Your task to perform on an android device: open app "Google Find My Device" (install if not already installed) Image 0: 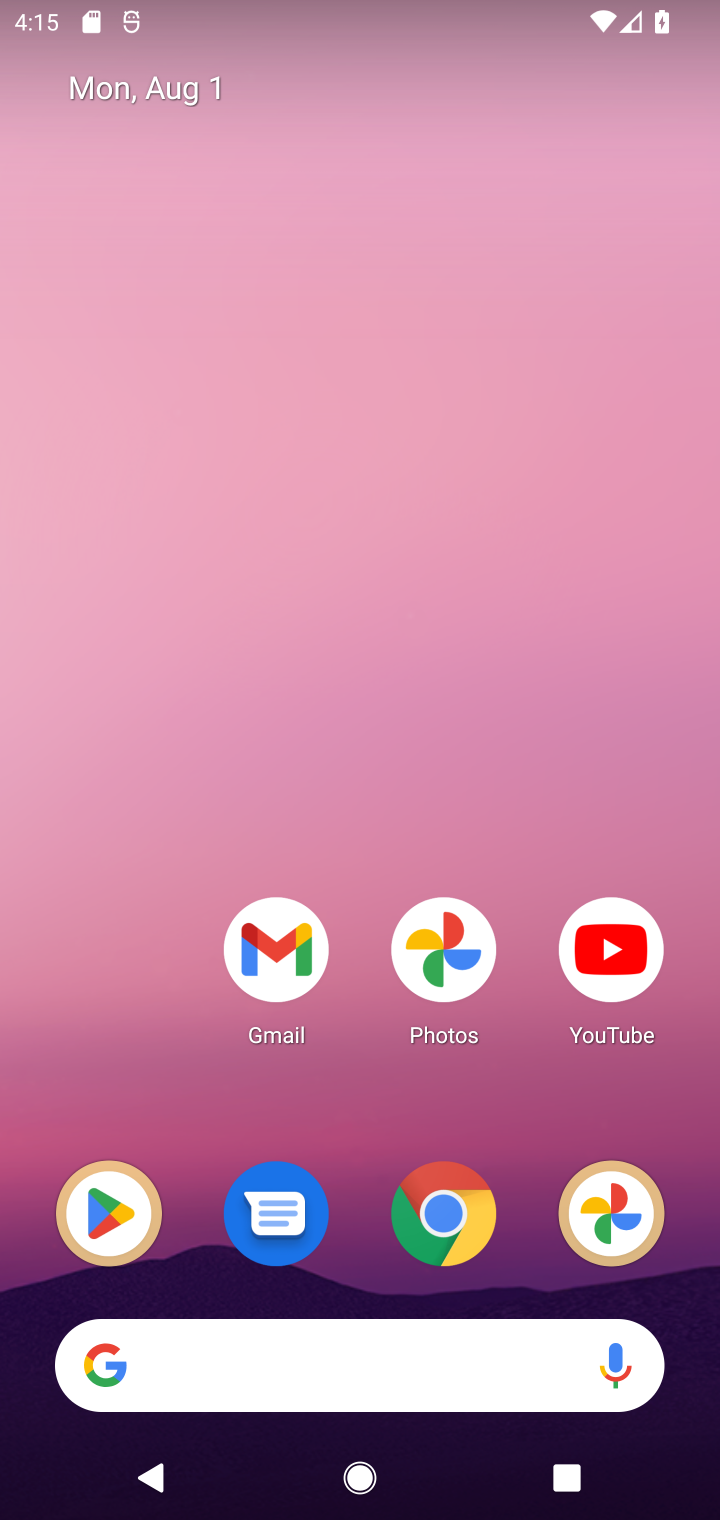
Step 0: drag from (492, 1087) to (518, 69)
Your task to perform on an android device: open app "Google Find My Device" (install if not already installed) Image 1: 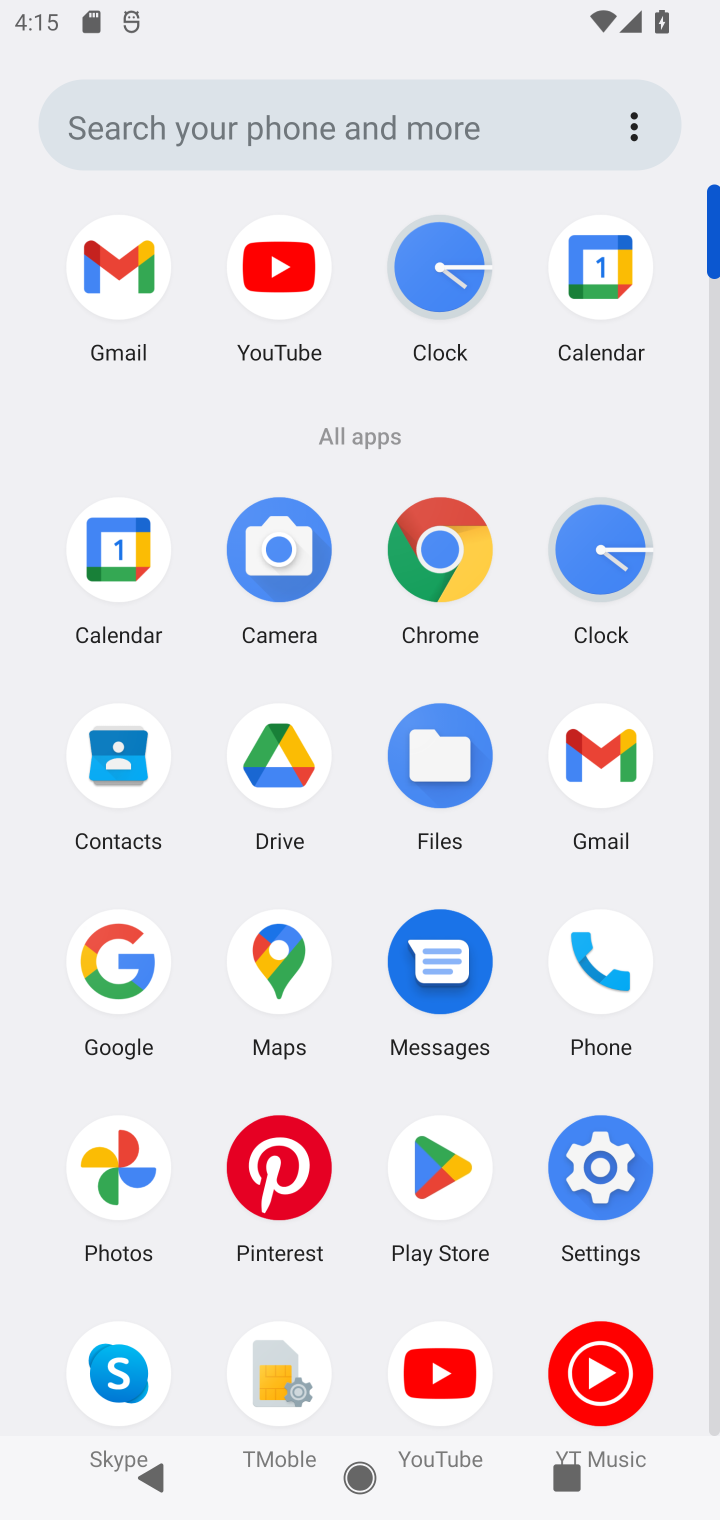
Step 1: click (448, 1168)
Your task to perform on an android device: open app "Google Find My Device" (install if not already installed) Image 2: 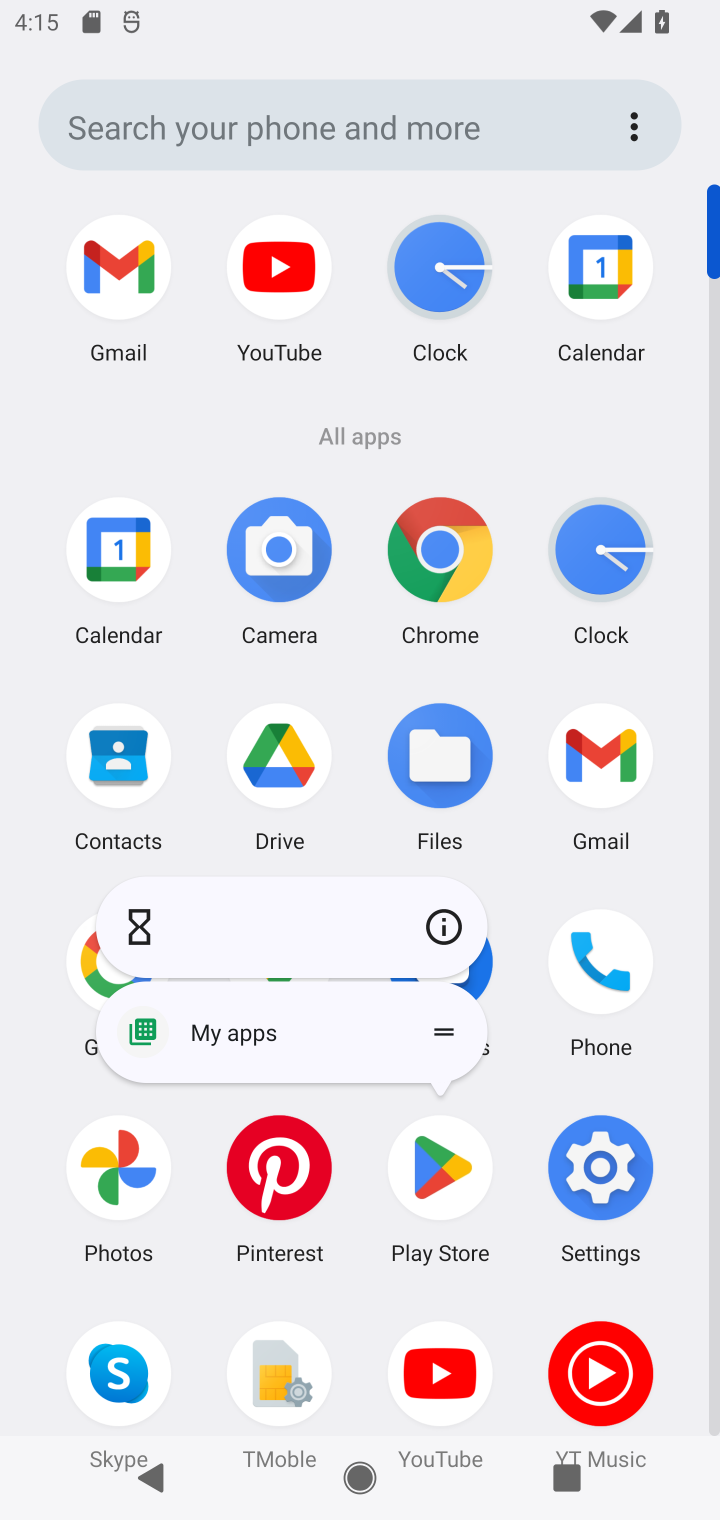
Step 2: click (433, 1168)
Your task to perform on an android device: open app "Google Find My Device" (install if not already installed) Image 3: 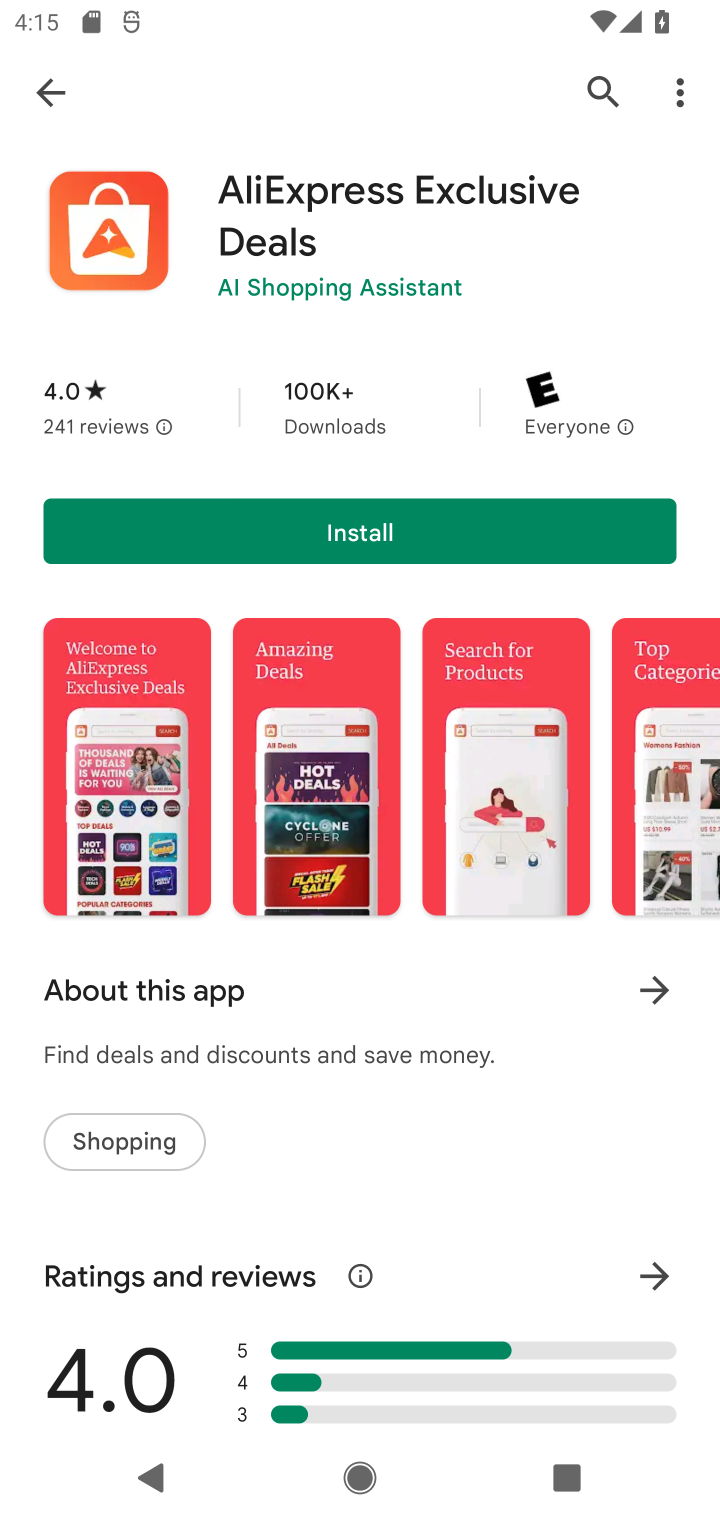
Step 3: click (591, 84)
Your task to perform on an android device: open app "Google Find My Device" (install if not already installed) Image 4: 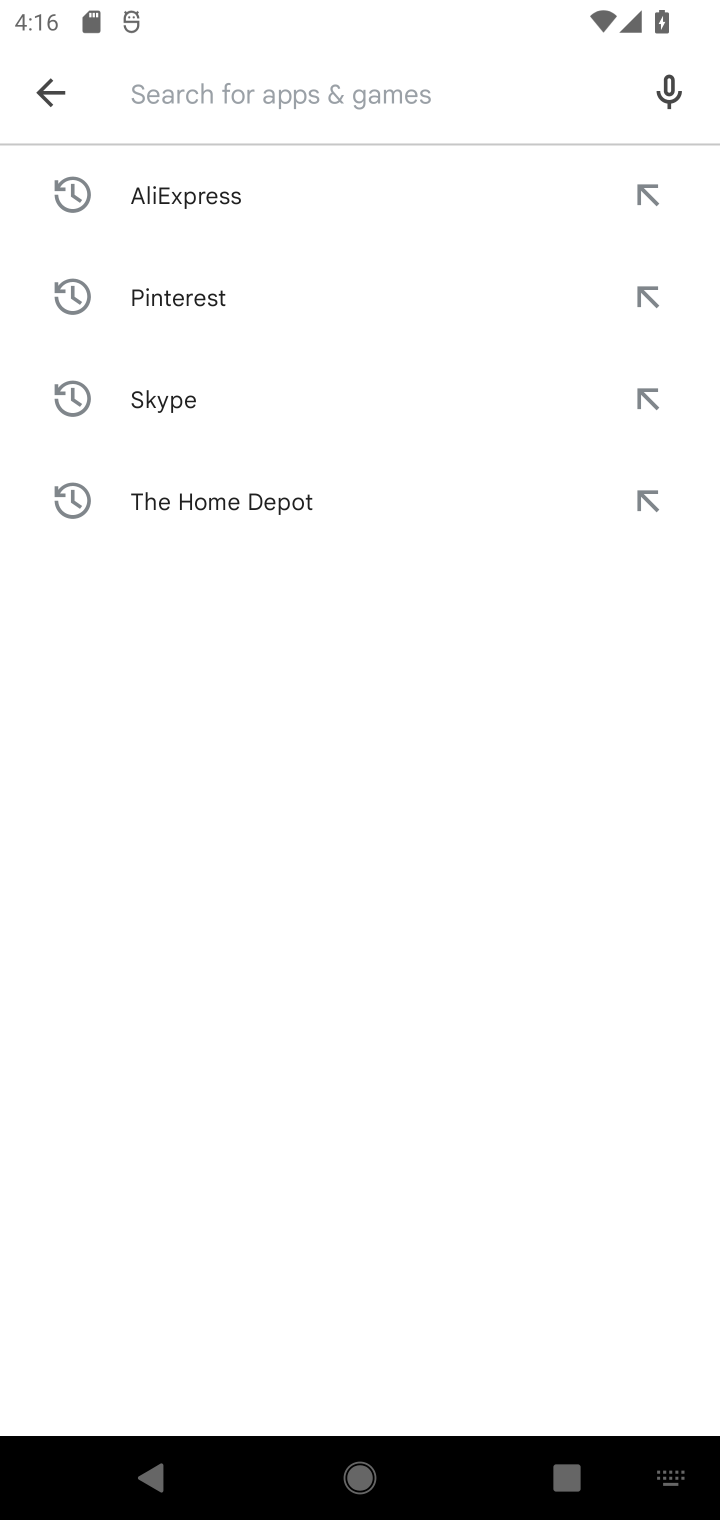
Step 4: type "Google Find My Device"
Your task to perform on an android device: open app "Google Find My Device" (install if not already installed) Image 5: 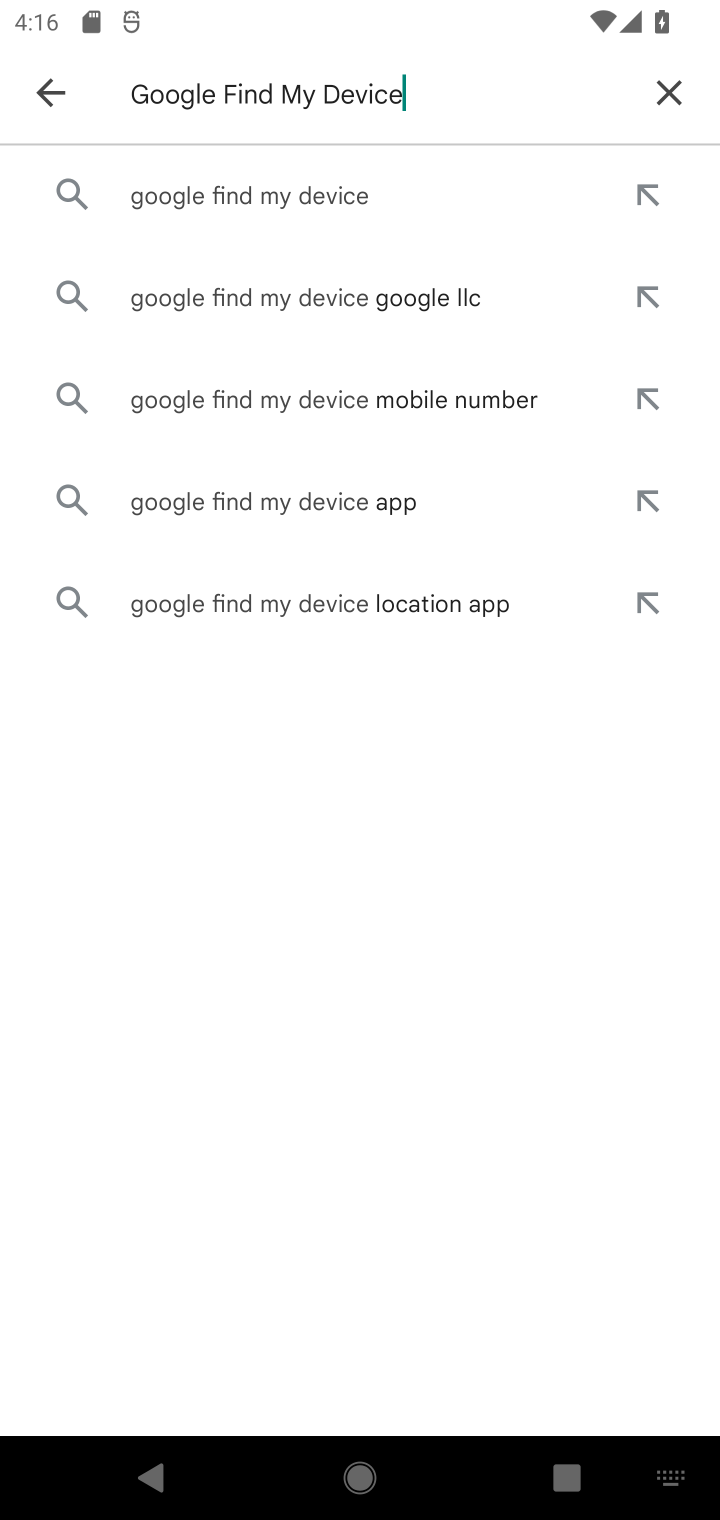
Step 5: press enter
Your task to perform on an android device: open app "Google Find My Device" (install if not already installed) Image 6: 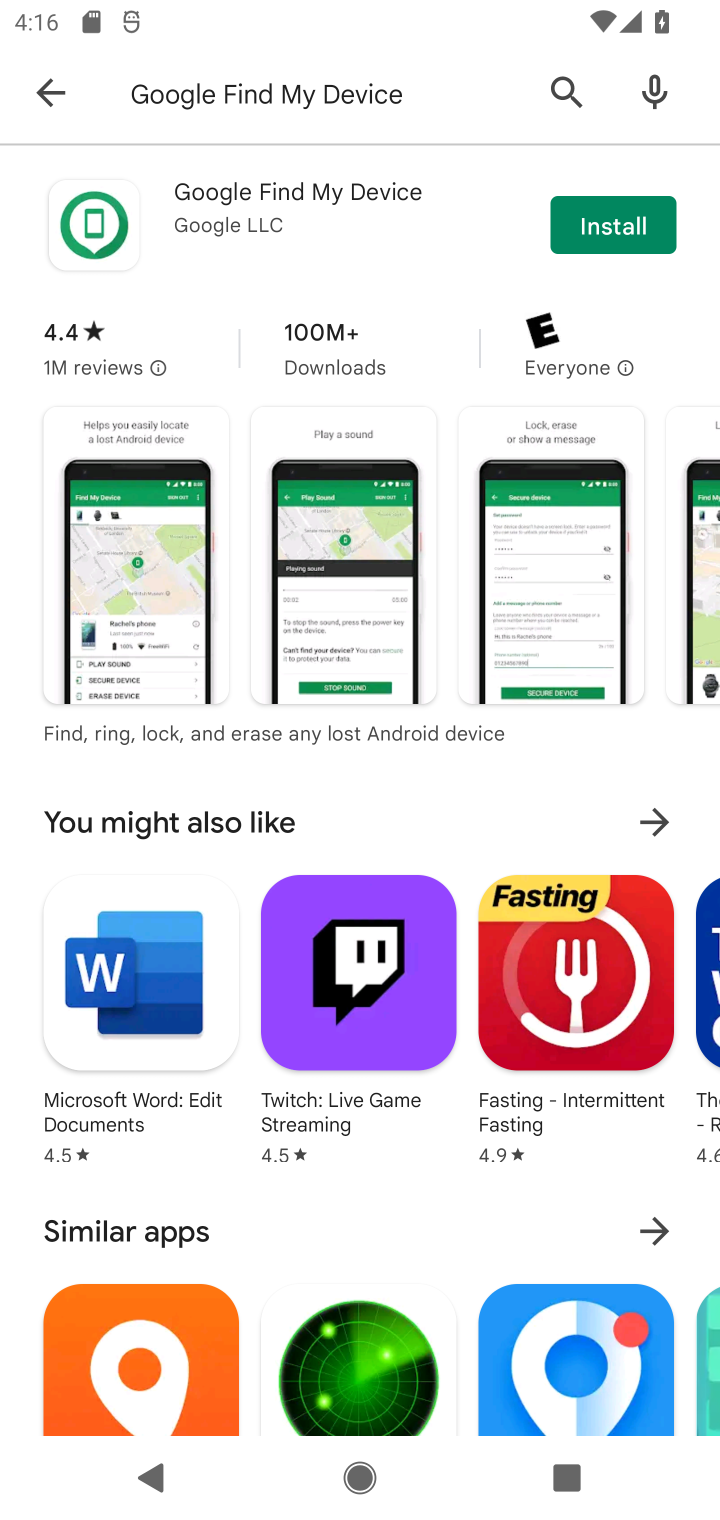
Step 6: click (625, 226)
Your task to perform on an android device: open app "Google Find My Device" (install if not already installed) Image 7: 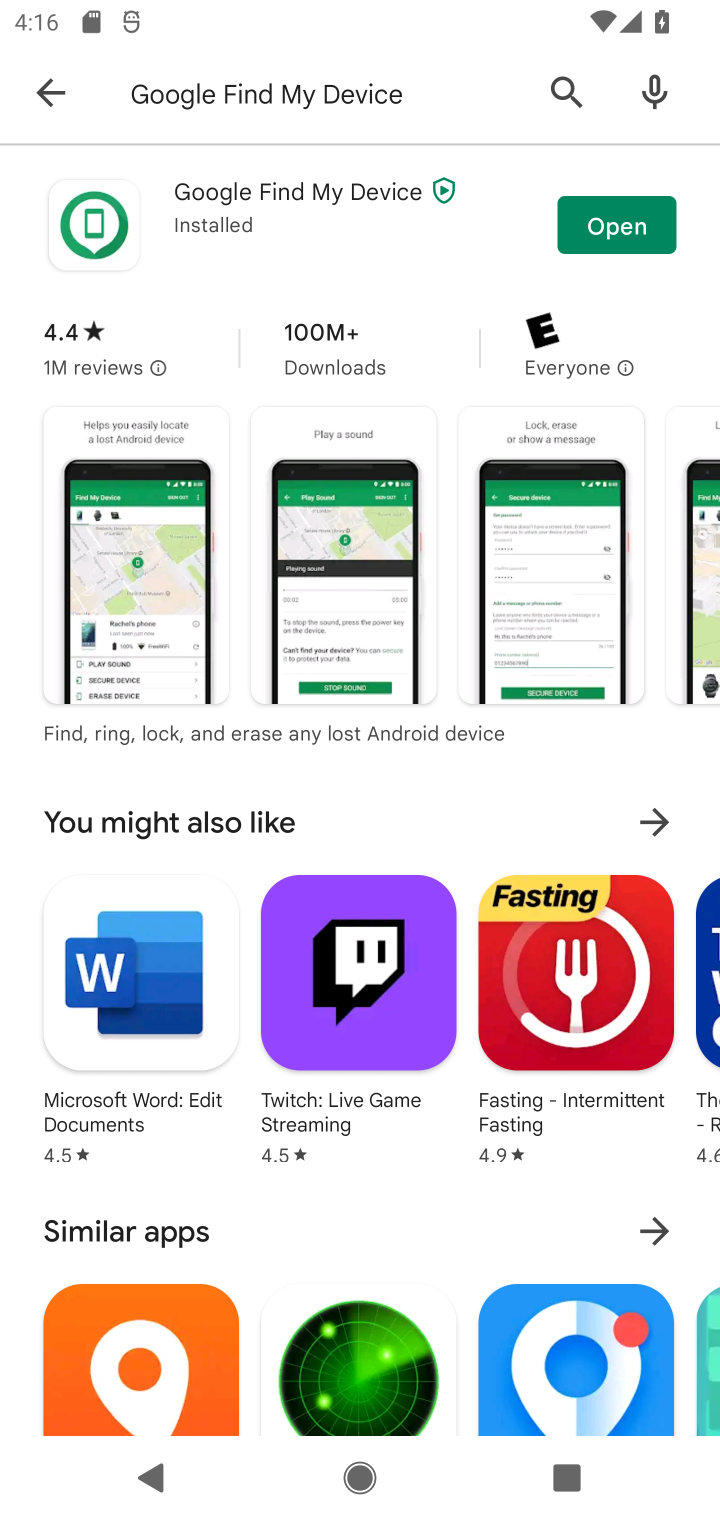
Step 7: click (605, 237)
Your task to perform on an android device: open app "Google Find My Device" (install if not already installed) Image 8: 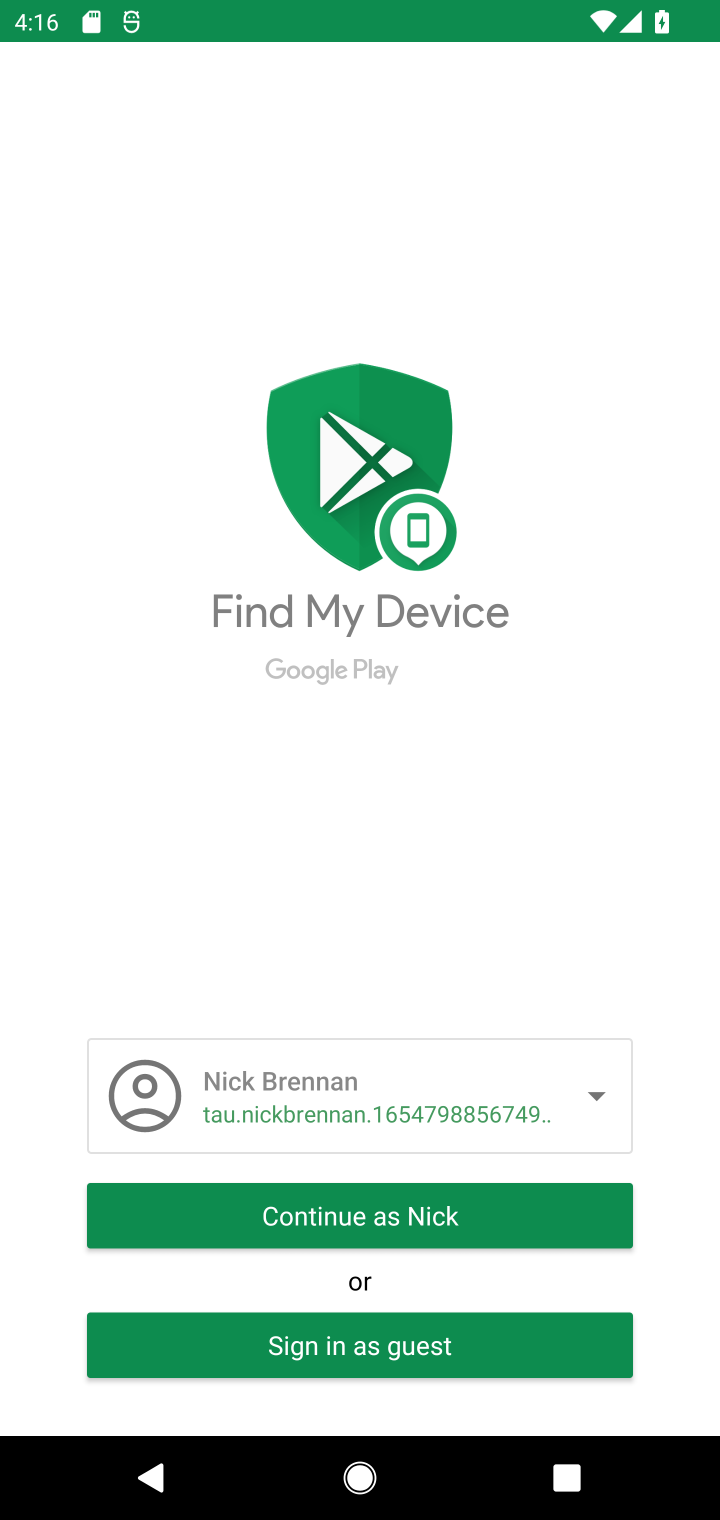
Step 8: task complete